Your task to perform on an android device: add a contact Image 0: 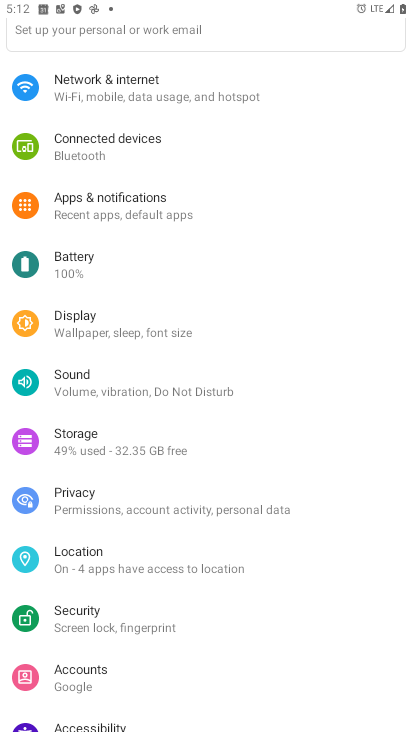
Step 0: press home button
Your task to perform on an android device: add a contact Image 1: 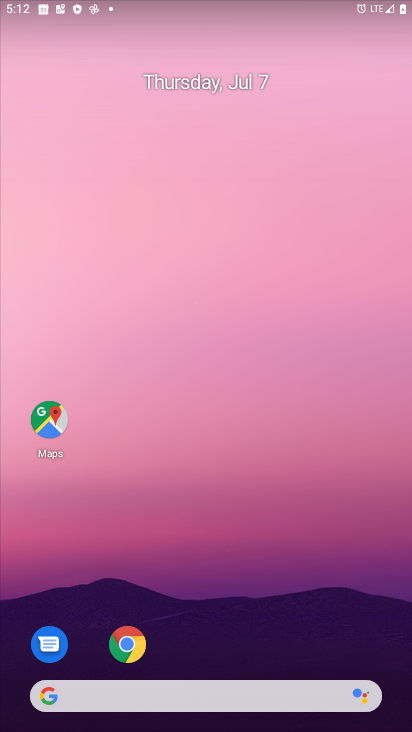
Step 1: drag from (260, 630) to (211, 197)
Your task to perform on an android device: add a contact Image 2: 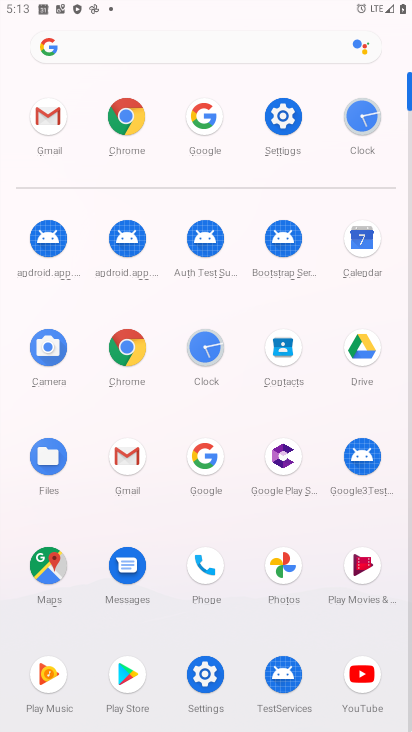
Step 2: click (283, 346)
Your task to perform on an android device: add a contact Image 3: 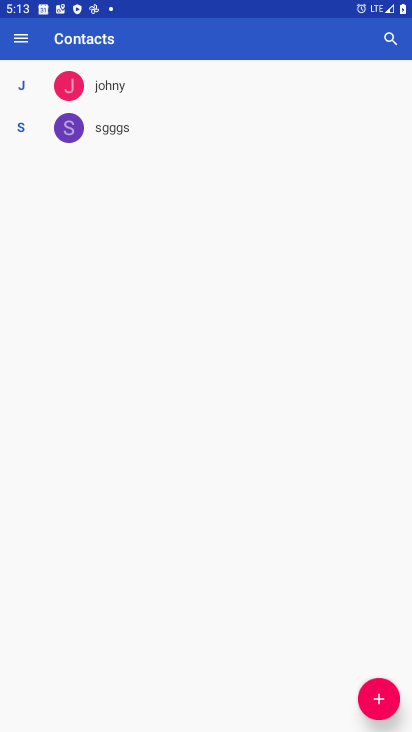
Step 3: click (378, 698)
Your task to perform on an android device: add a contact Image 4: 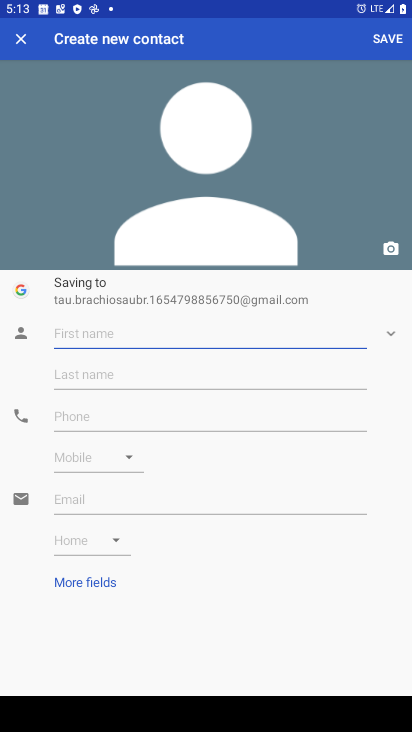
Step 4: type "Puneet "
Your task to perform on an android device: add a contact Image 5: 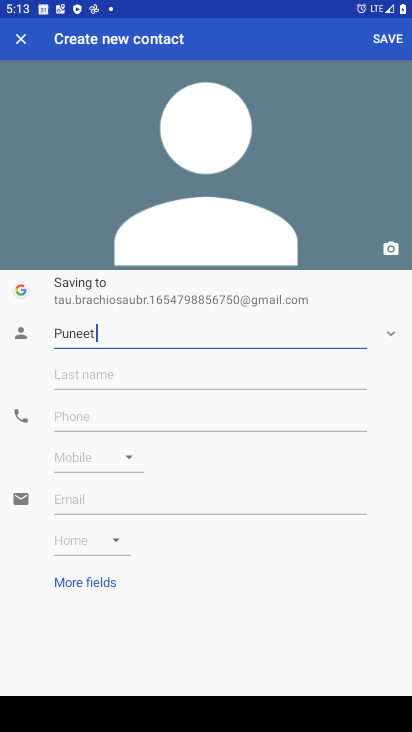
Step 5: click (139, 367)
Your task to perform on an android device: add a contact Image 6: 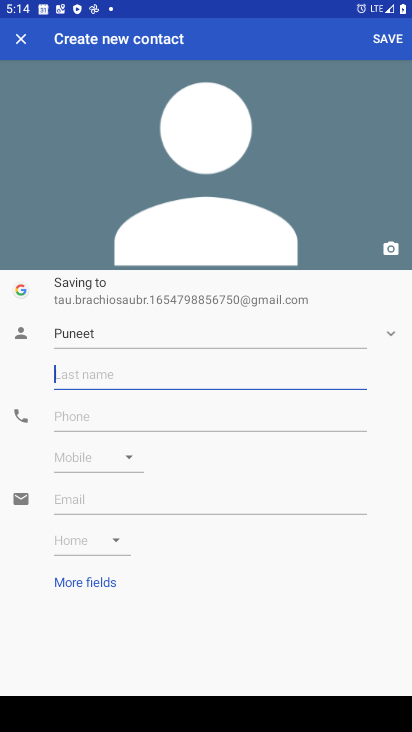
Step 6: type "Majethia"
Your task to perform on an android device: add a contact Image 7: 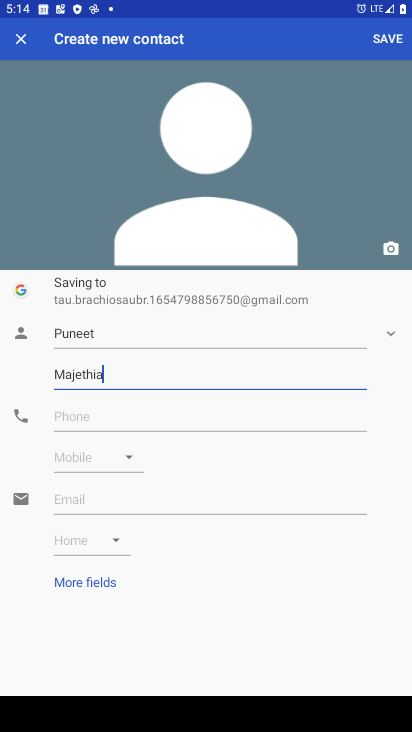
Step 7: click (161, 419)
Your task to perform on an android device: add a contact Image 8: 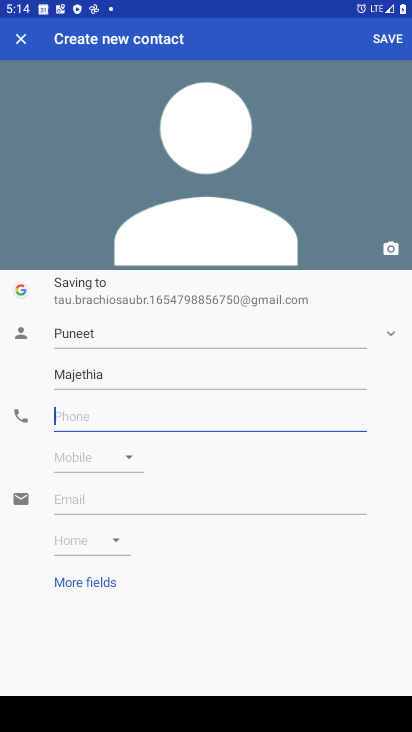
Step 8: type "09132567343"
Your task to perform on an android device: add a contact Image 9: 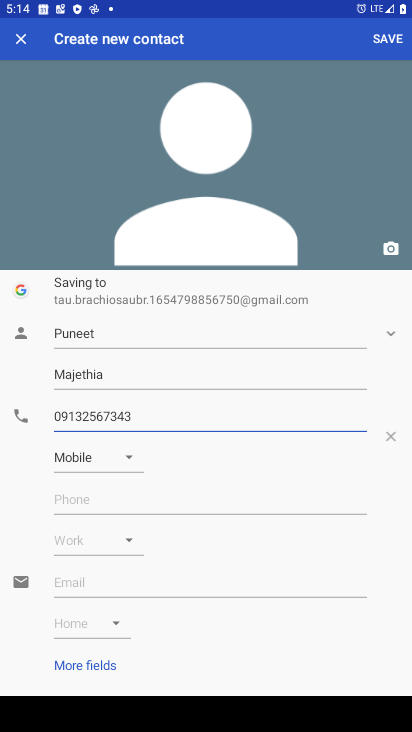
Step 9: click (384, 39)
Your task to perform on an android device: add a contact Image 10: 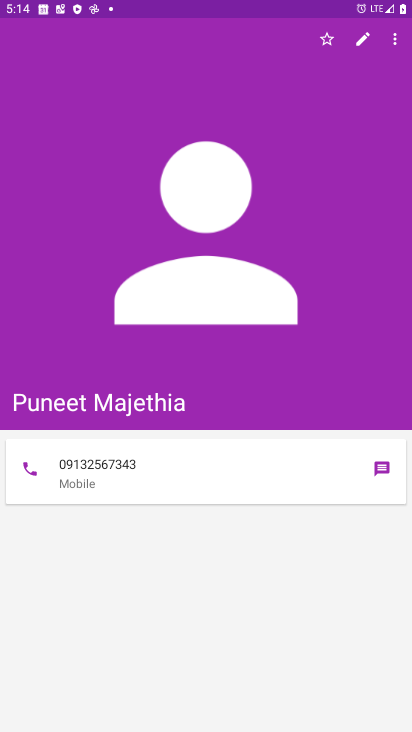
Step 10: task complete